Your task to perform on an android device: turn off wifi Image 0: 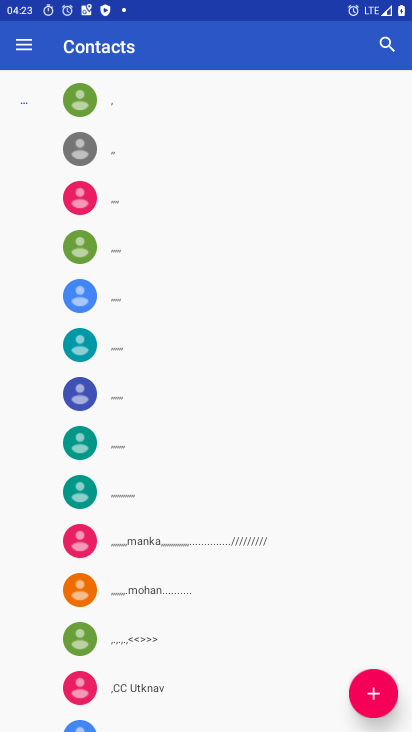
Step 0: press home button
Your task to perform on an android device: turn off wifi Image 1: 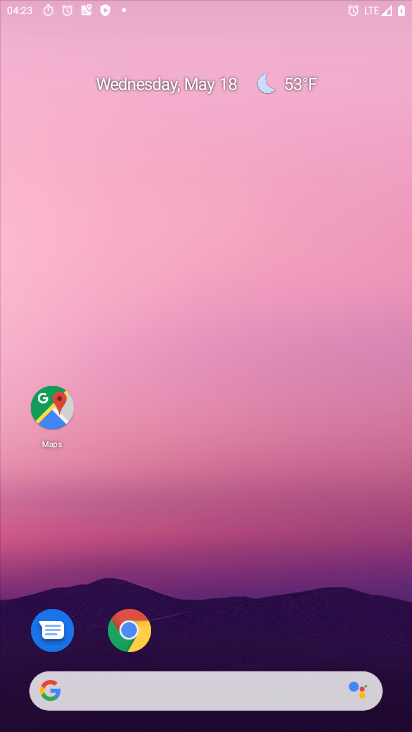
Step 1: drag from (213, 693) to (207, 53)
Your task to perform on an android device: turn off wifi Image 2: 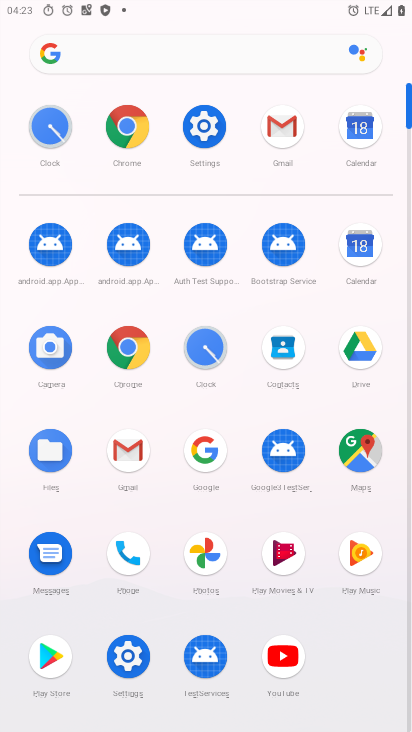
Step 2: click (208, 125)
Your task to perform on an android device: turn off wifi Image 3: 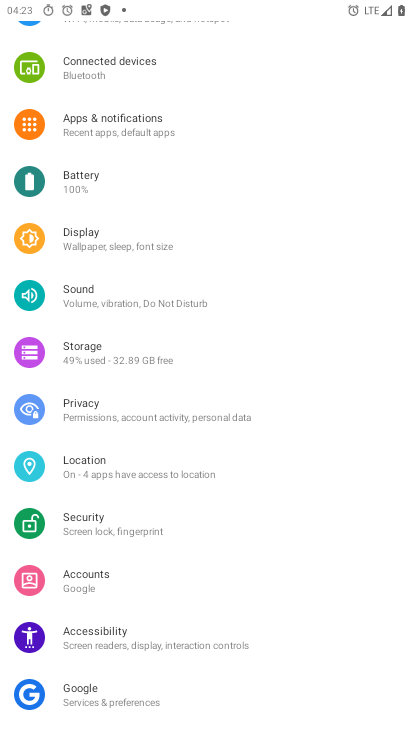
Step 3: drag from (210, 112) to (211, 611)
Your task to perform on an android device: turn off wifi Image 4: 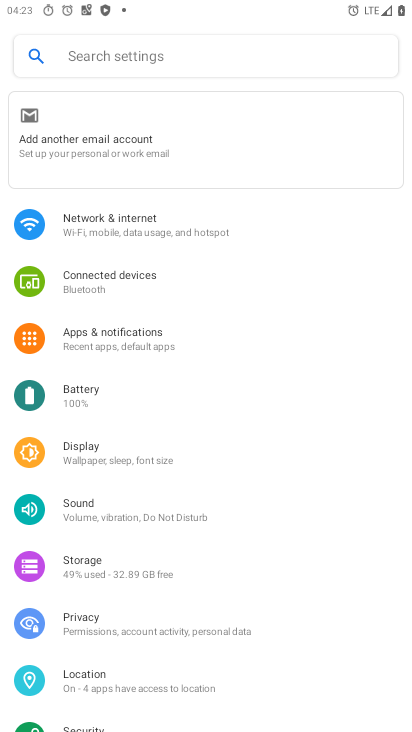
Step 4: click (96, 232)
Your task to perform on an android device: turn off wifi Image 5: 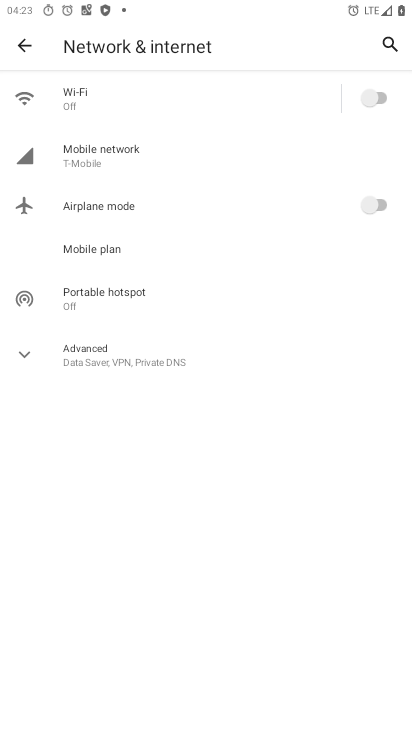
Step 5: task complete